Your task to perform on an android device: turn off translation in the chrome app Image 0: 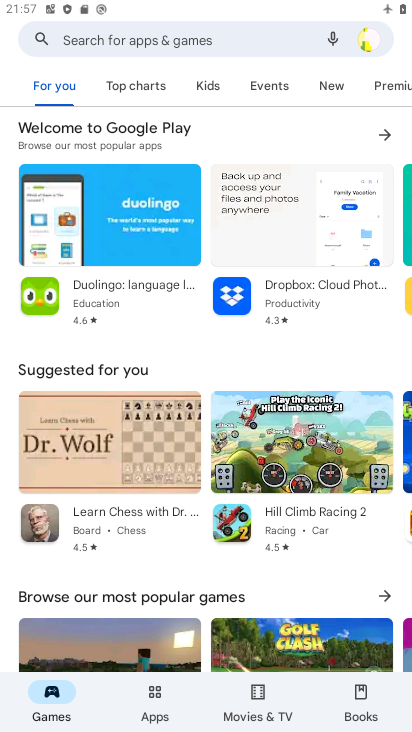
Step 0: press back button
Your task to perform on an android device: turn off translation in the chrome app Image 1: 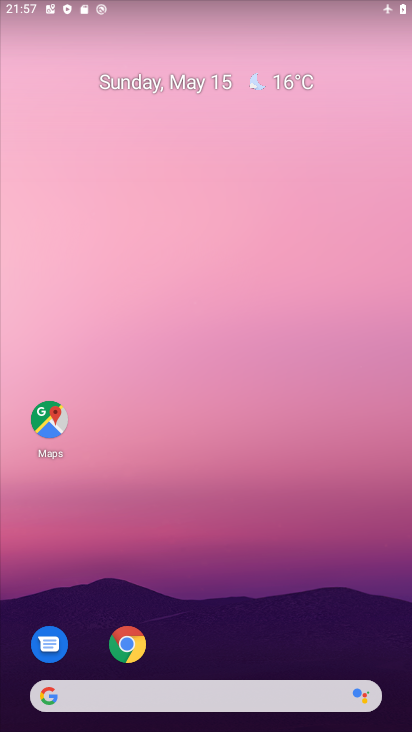
Step 1: click (135, 643)
Your task to perform on an android device: turn off translation in the chrome app Image 2: 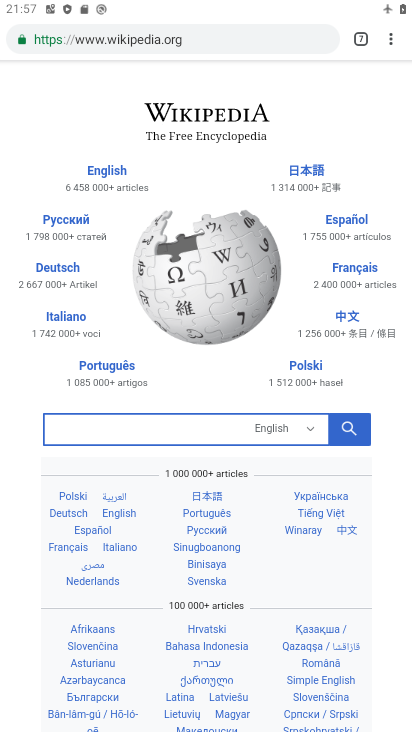
Step 2: drag from (392, 35) to (252, 437)
Your task to perform on an android device: turn off translation in the chrome app Image 3: 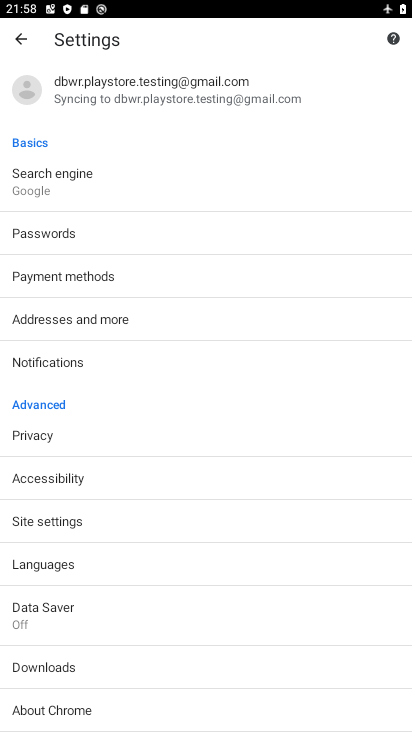
Step 3: click (68, 563)
Your task to perform on an android device: turn off translation in the chrome app Image 4: 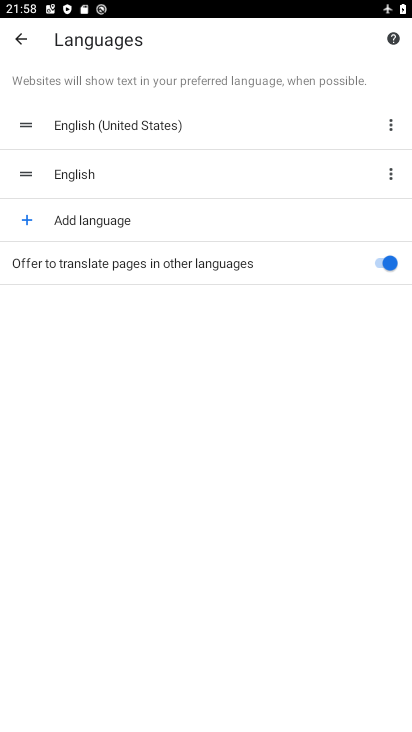
Step 4: click (382, 261)
Your task to perform on an android device: turn off translation in the chrome app Image 5: 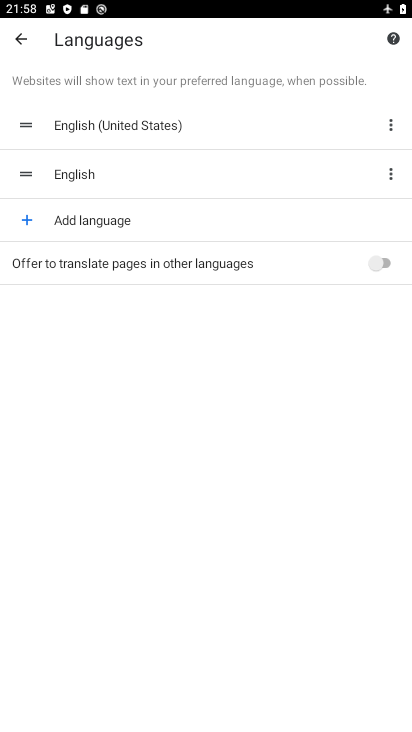
Step 5: task complete